Your task to perform on an android device: Open eBay Image 0: 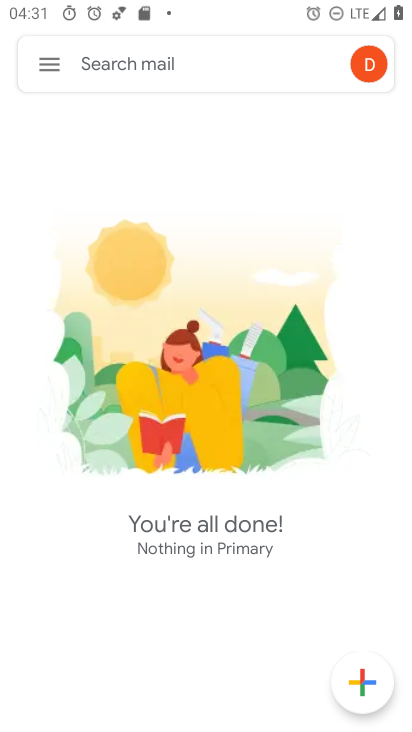
Step 0: press home button
Your task to perform on an android device: Open eBay Image 1: 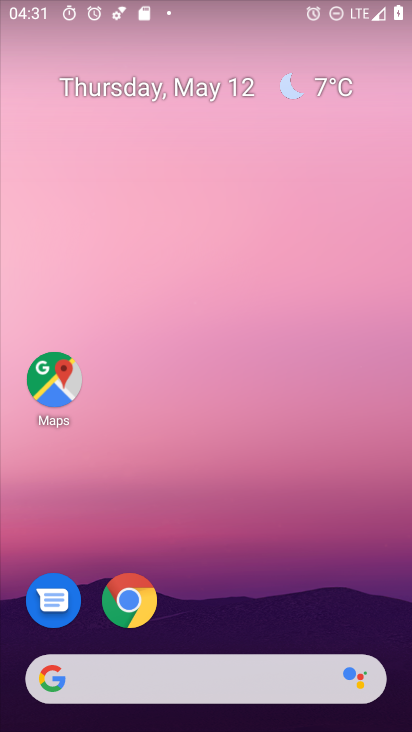
Step 1: click (128, 601)
Your task to perform on an android device: Open eBay Image 2: 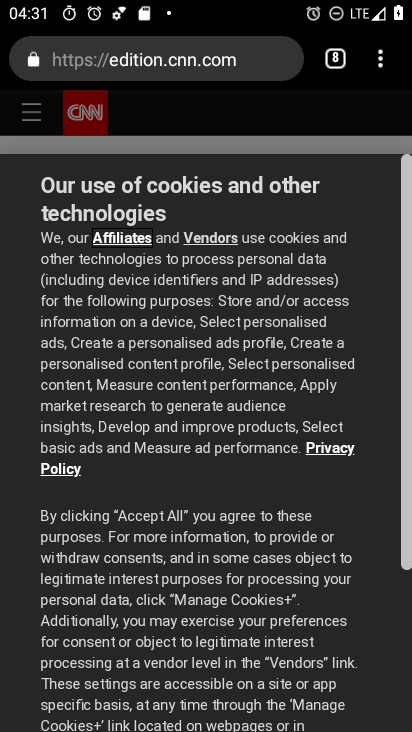
Step 2: click (381, 65)
Your task to perform on an android device: Open eBay Image 3: 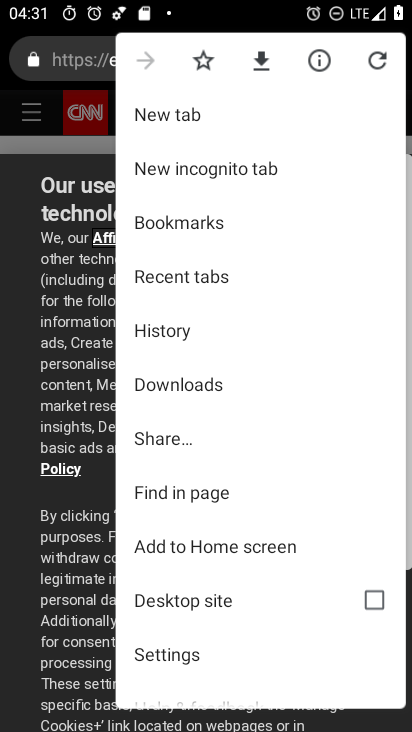
Step 3: click (163, 112)
Your task to perform on an android device: Open eBay Image 4: 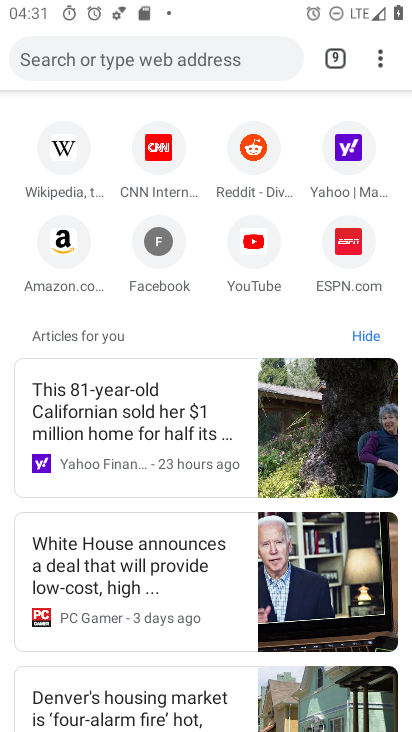
Step 4: click (207, 61)
Your task to perform on an android device: Open eBay Image 5: 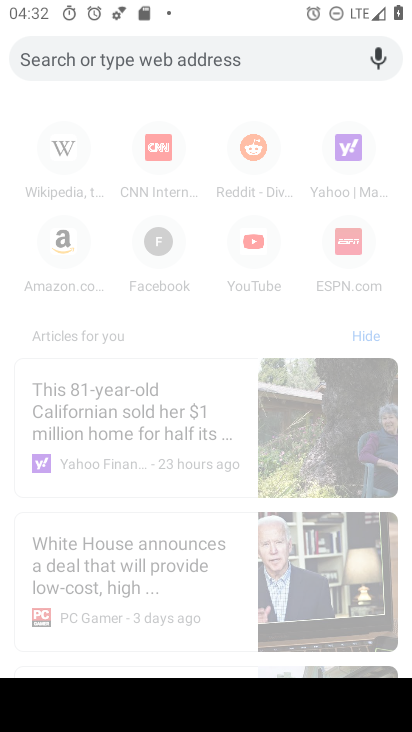
Step 5: type "eBay"
Your task to perform on an android device: Open eBay Image 6: 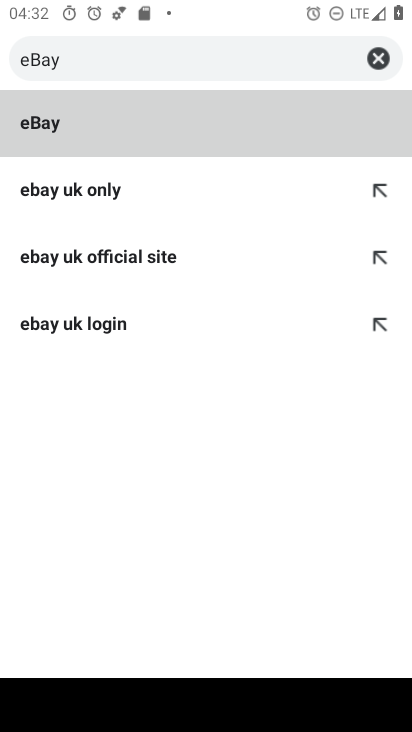
Step 6: click (92, 126)
Your task to perform on an android device: Open eBay Image 7: 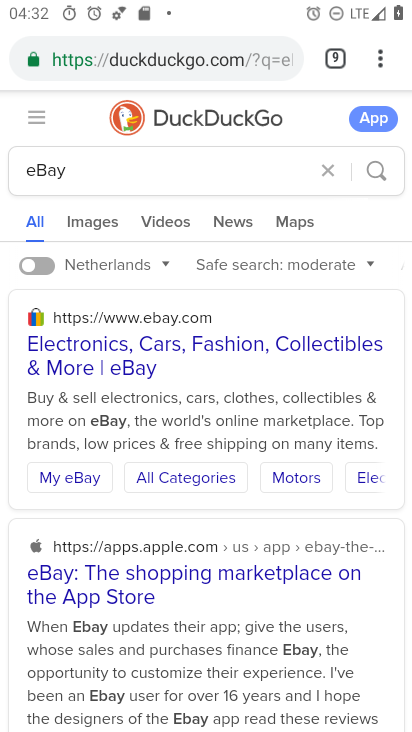
Step 7: click (144, 348)
Your task to perform on an android device: Open eBay Image 8: 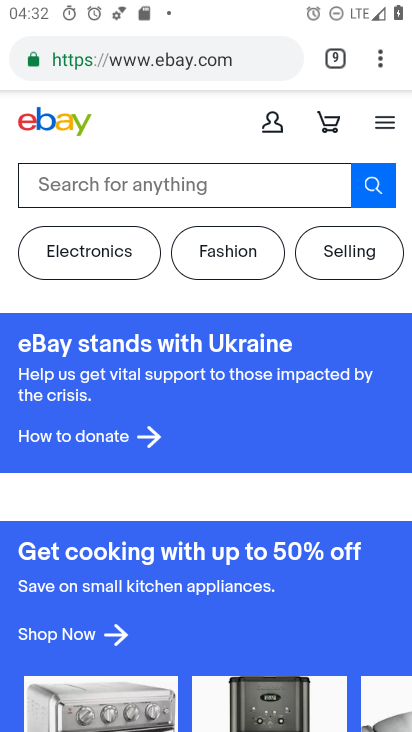
Step 8: task complete